Your task to perform on an android device: Show me popular games on the Play Store Image 0: 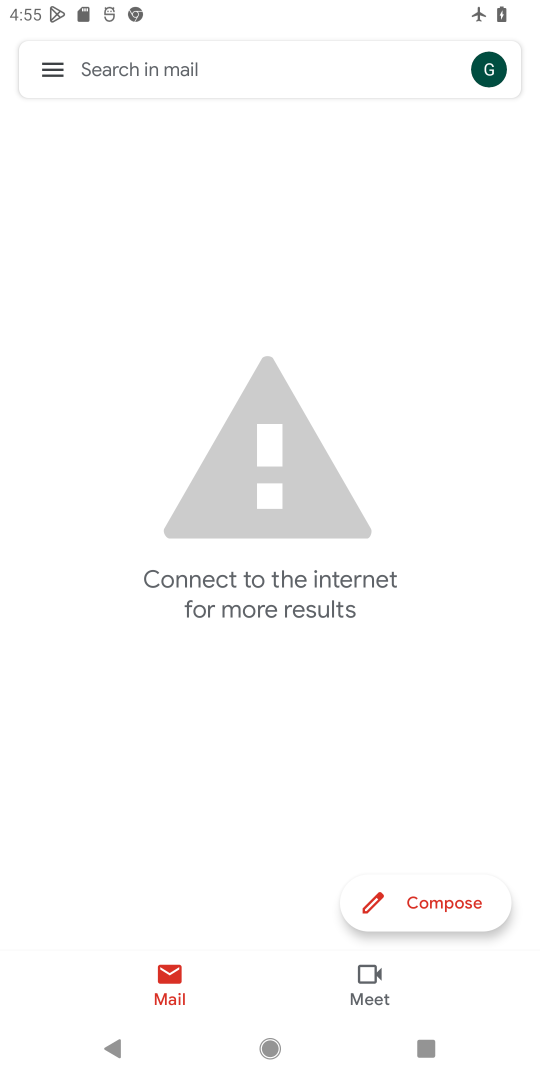
Step 0: press home button
Your task to perform on an android device: Show me popular games on the Play Store Image 1: 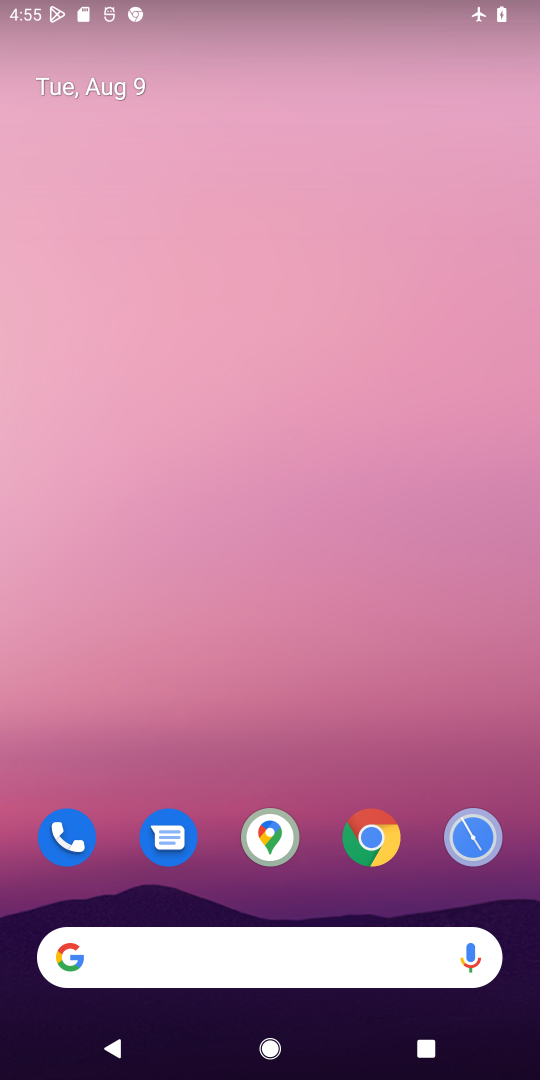
Step 1: drag from (233, 987) to (248, 309)
Your task to perform on an android device: Show me popular games on the Play Store Image 2: 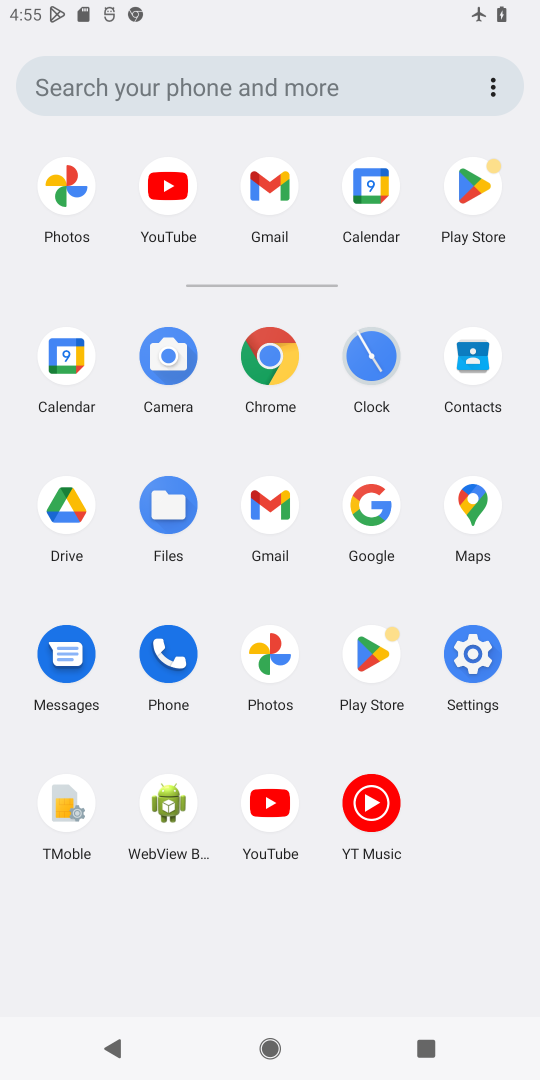
Step 2: click (371, 640)
Your task to perform on an android device: Show me popular games on the Play Store Image 3: 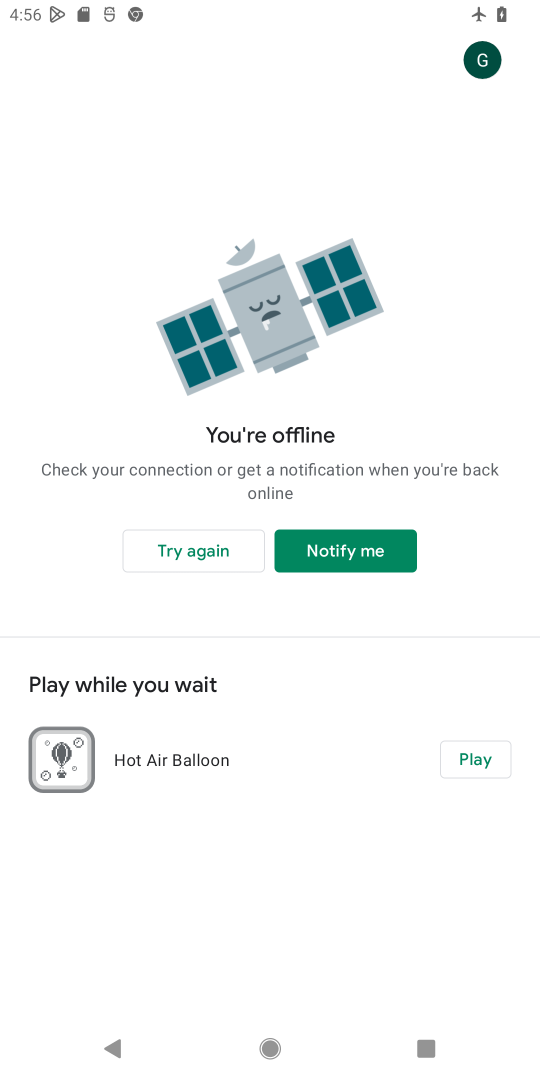
Step 3: task complete